Your task to perform on an android device: change text size in settings app Image 0: 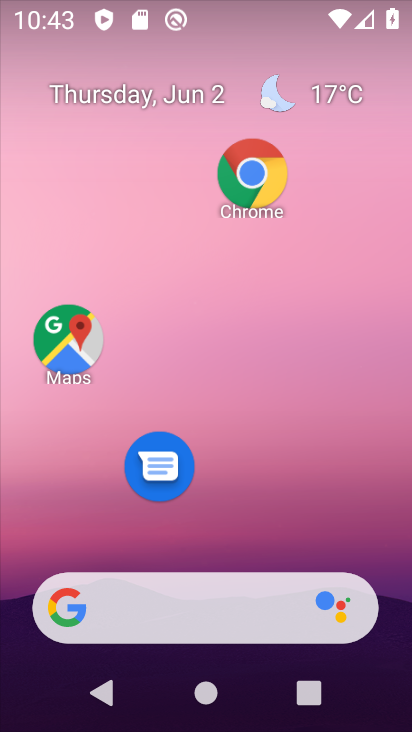
Step 0: drag from (262, 381) to (208, 0)
Your task to perform on an android device: change text size in settings app Image 1: 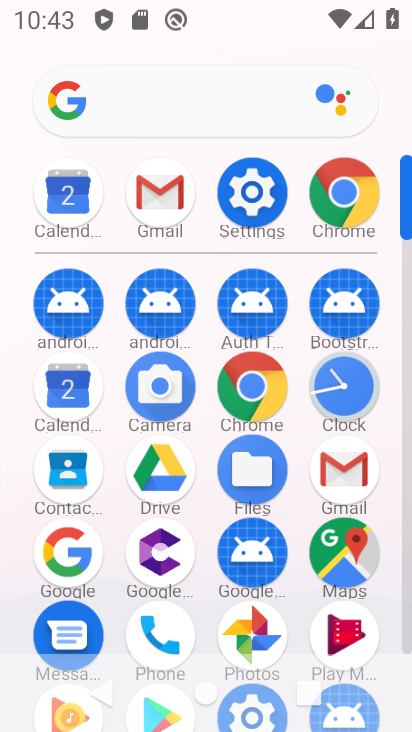
Step 1: click (258, 194)
Your task to perform on an android device: change text size in settings app Image 2: 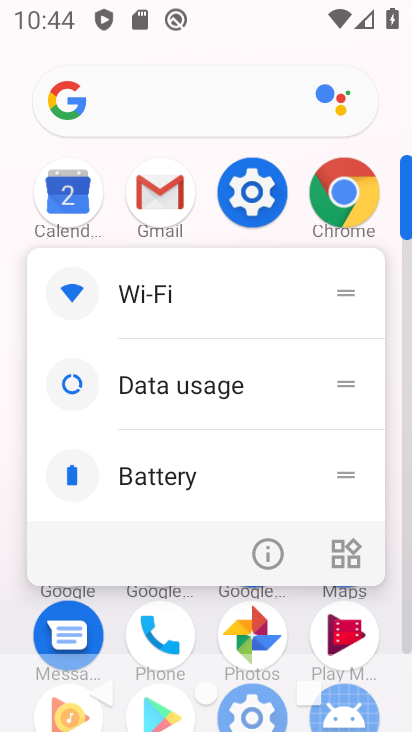
Step 2: click (256, 197)
Your task to perform on an android device: change text size in settings app Image 3: 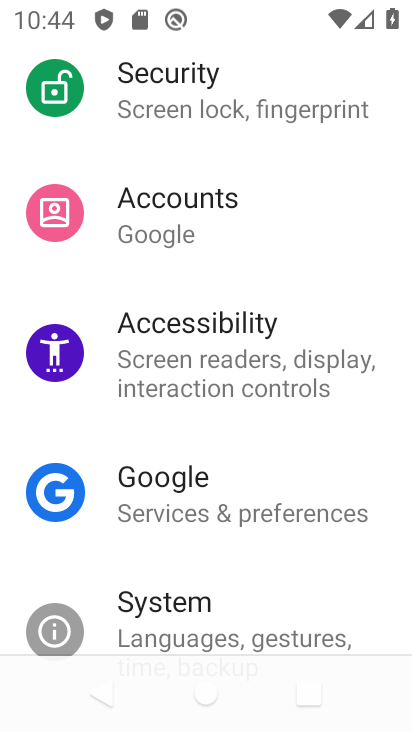
Step 3: drag from (268, 61) to (117, 478)
Your task to perform on an android device: change text size in settings app Image 4: 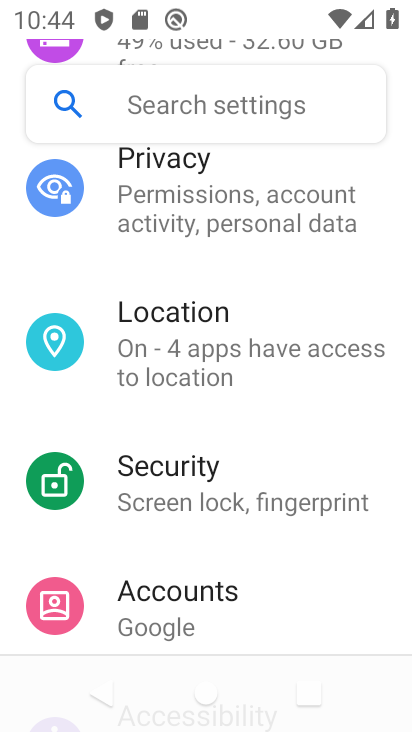
Step 4: drag from (289, 284) to (209, 585)
Your task to perform on an android device: change text size in settings app Image 5: 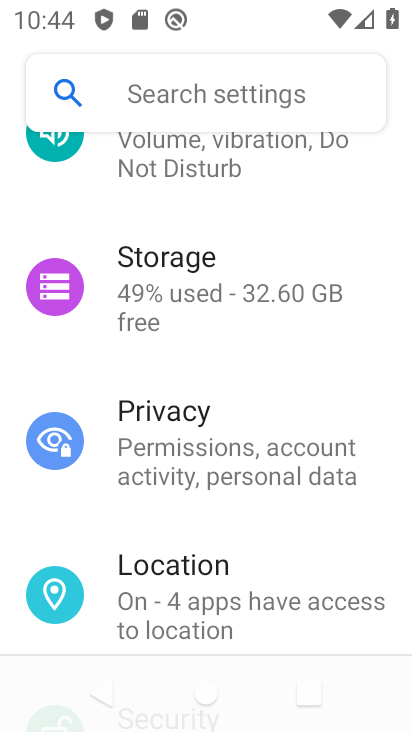
Step 5: drag from (250, 235) to (169, 558)
Your task to perform on an android device: change text size in settings app Image 6: 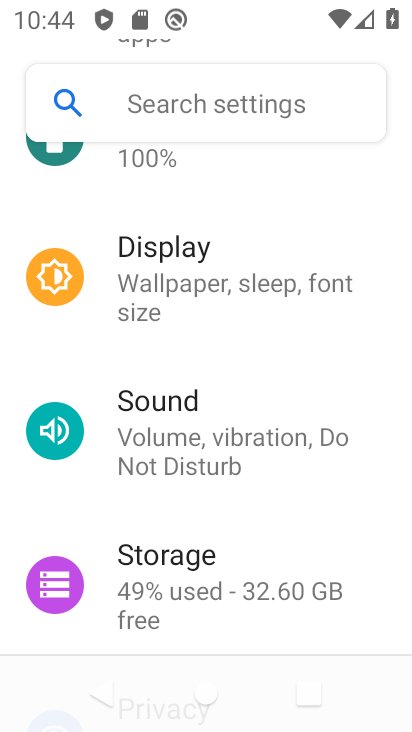
Step 6: click (209, 283)
Your task to perform on an android device: change text size in settings app Image 7: 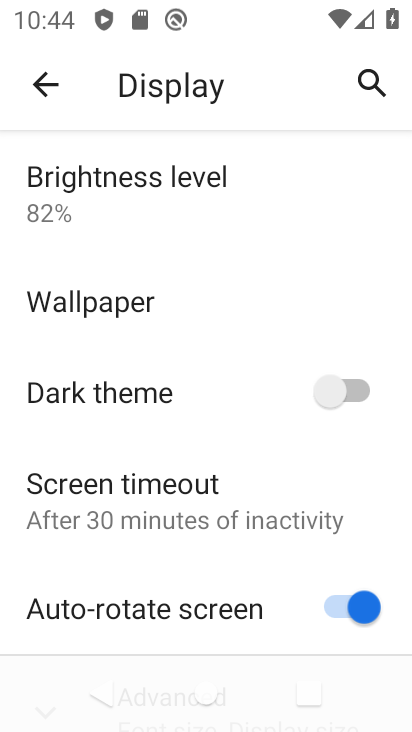
Step 7: drag from (250, 426) to (238, 169)
Your task to perform on an android device: change text size in settings app Image 8: 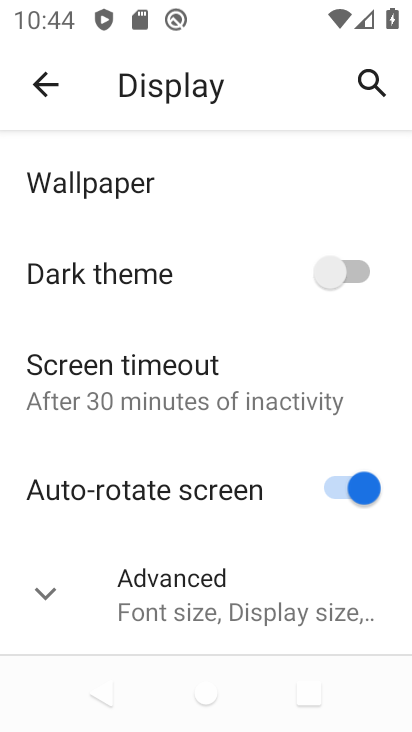
Step 8: click (120, 585)
Your task to perform on an android device: change text size in settings app Image 9: 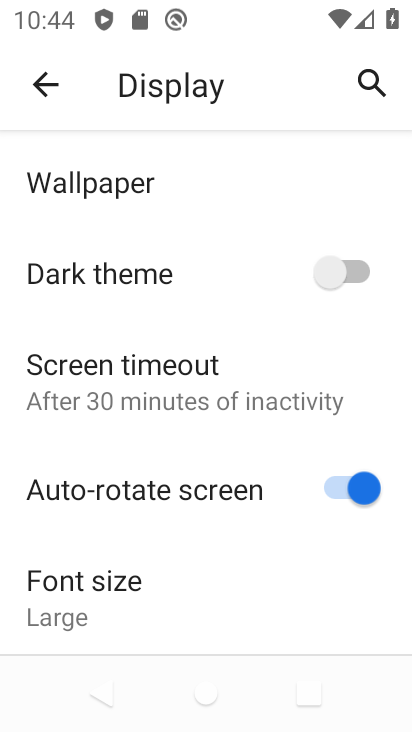
Step 9: click (83, 600)
Your task to perform on an android device: change text size in settings app Image 10: 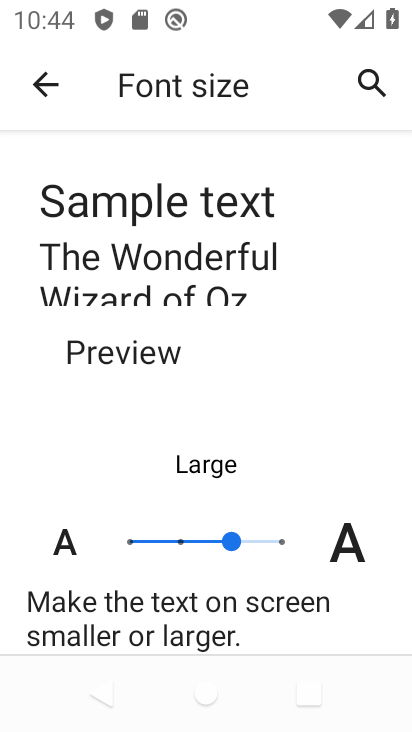
Step 10: click (191, 540)
Your task to perform on an android device: change text size in settings app Image 11: 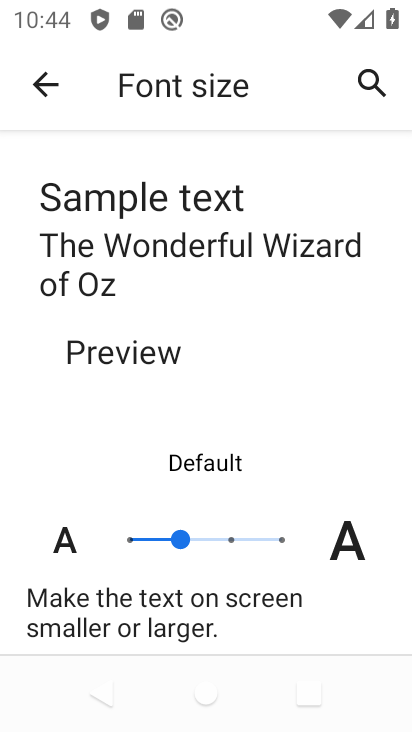
Step 11: task complete